Your task to perform on an android device: check google app version Image 0: 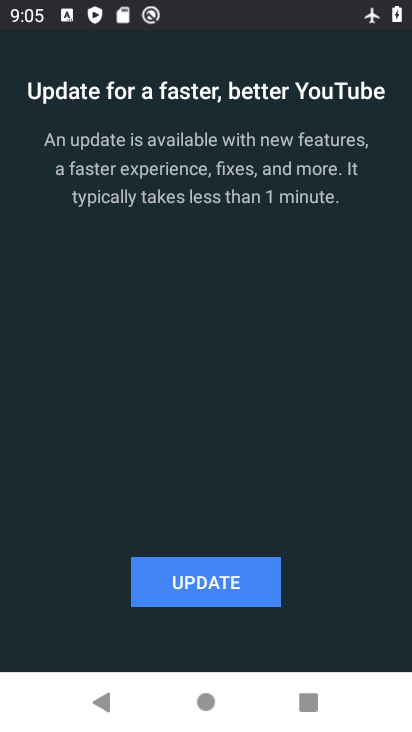
Step 0: press home button
Your task to perform on an android device: check google app version Image 1: 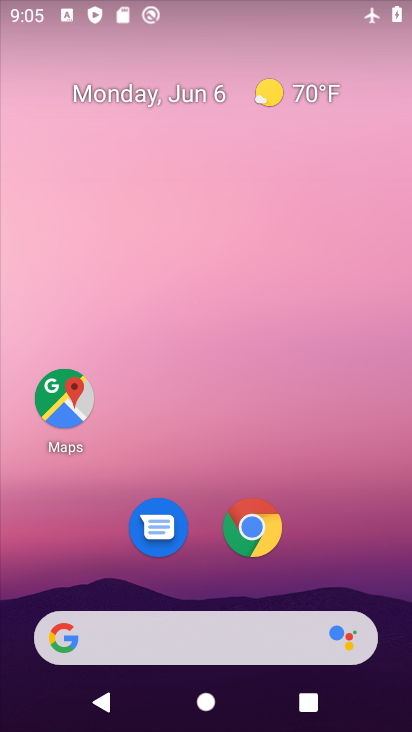
Step 1: drag from (189, 544) to (217, 220)
Your task to perform on an android device: check google app version Image 2: 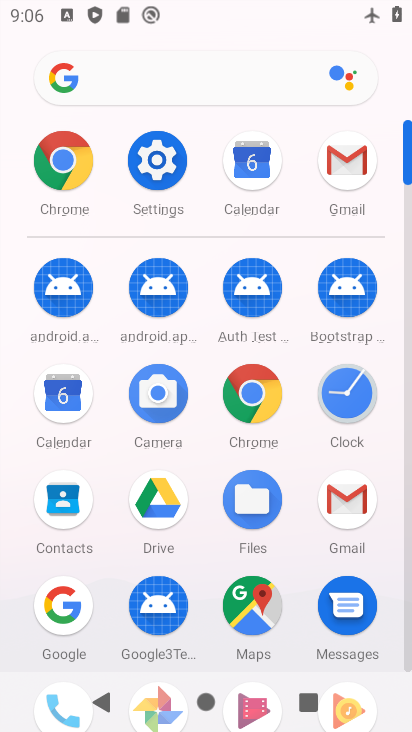
Step 2: click (83, 616)
Your task to perform on an android device: check google app version Image 3: 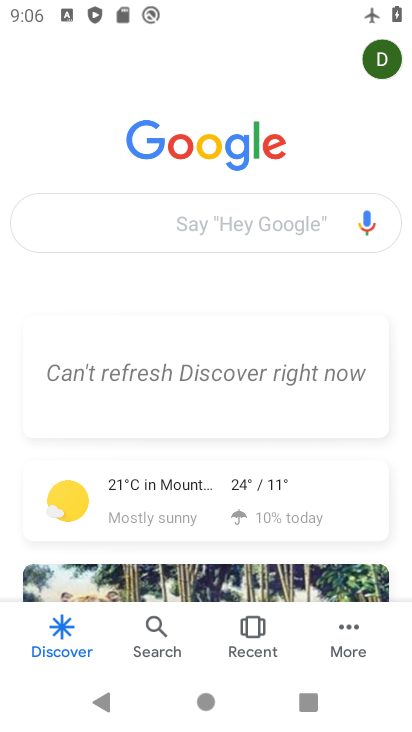
Step 3: click (338, 646)
Your task to perform on an android device: check google app version Image 4: 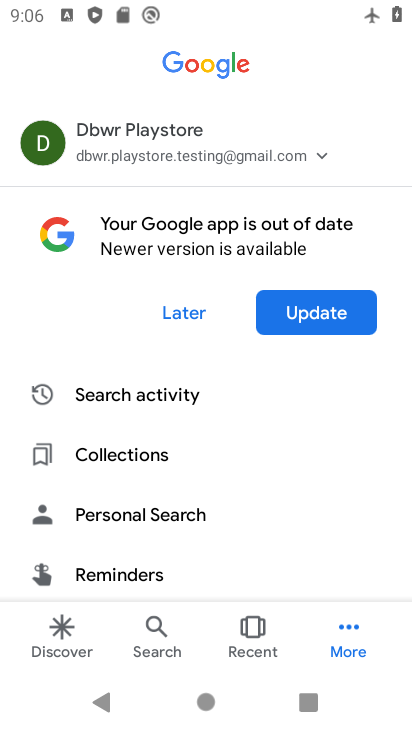
Step 4: drag from (130, 491) to (100, 302)
Your task to perform on an android device: check google app version Image 5: 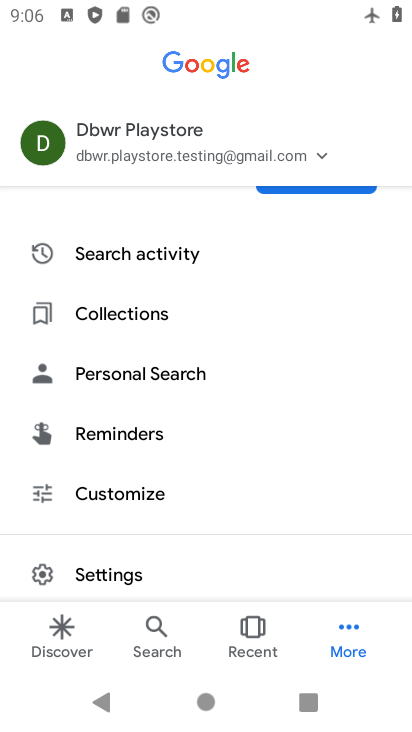
Step 5: click (109, 567)
Your task to perform on an android device: check google app version Image 6: 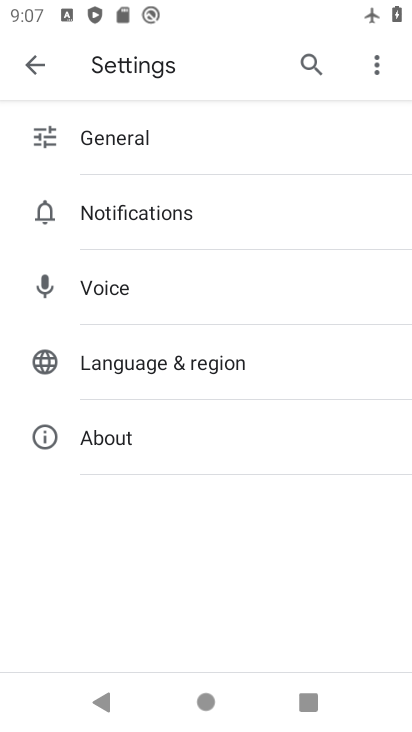
Step 6: click (135, 441)
Your task to perform on an android device: check google app version Image 7: 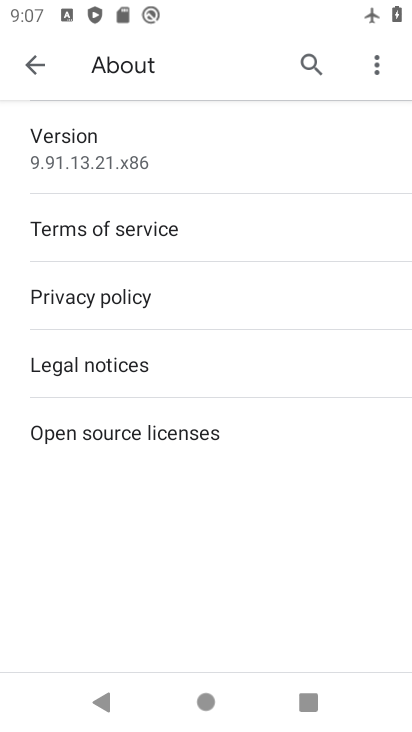
Step 7: task complete